Your task to perform on an android device: visit the assistant section in the google photos Image 0: 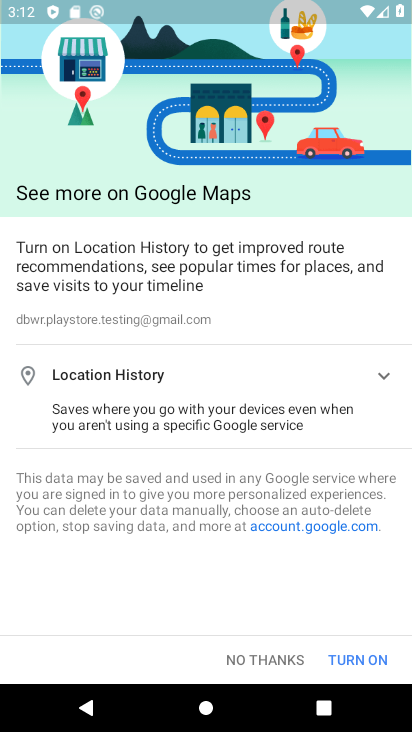
Step 0: press home button
Your task to perform on an android device: visit the assistant section in the google photos Image 1: 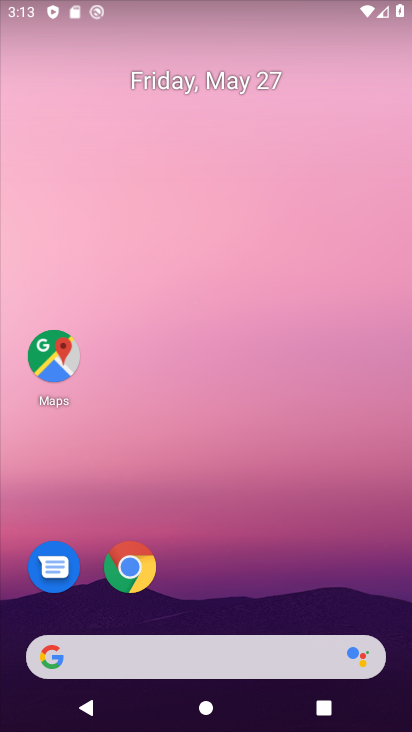
Step 1: drag from (344, 599) to (283, 171)
Your task to perform on an android device: visit the assistant section in the google photos Image 2: 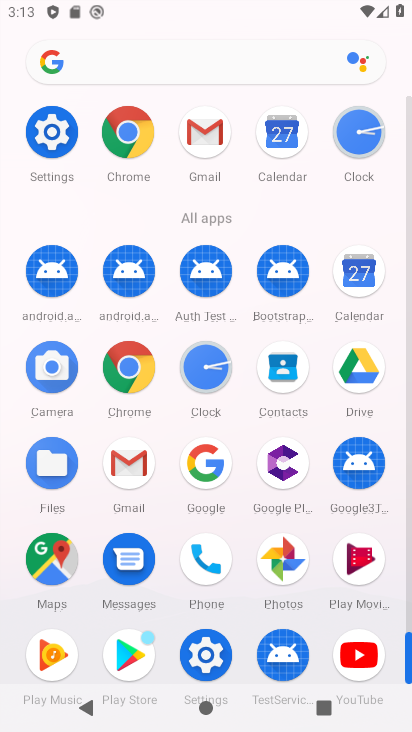
Step 2: click (283, 557)
Your task to perform on an android device: visit the assistant section in the google photos Image 3: 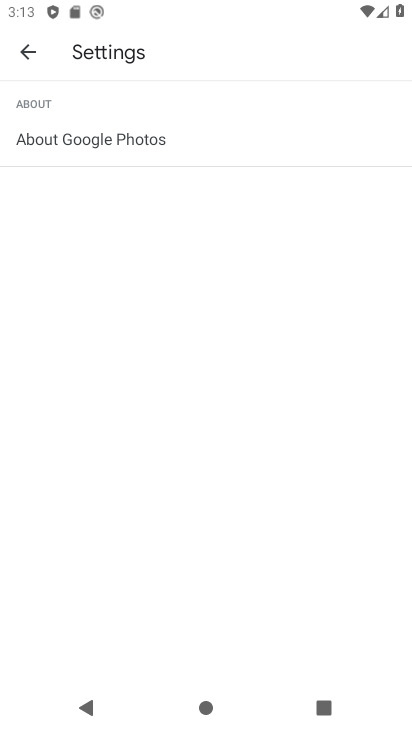
Step 3: press back button
Your task to perform on an android device: visit the assistant section in the google photos Image 4: 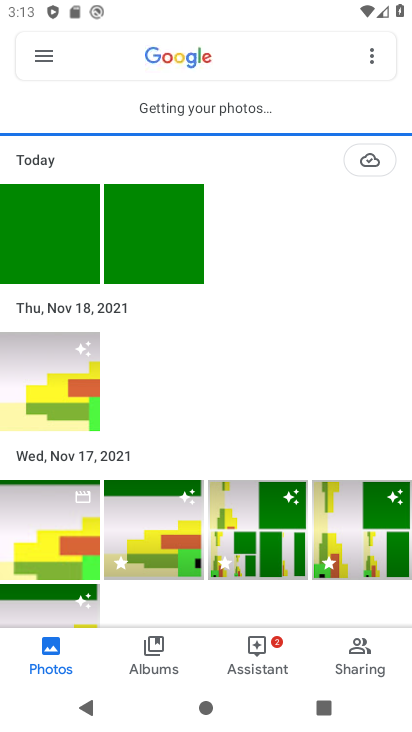
Step 4: click (258, 646)
Your task to perform on an android device: visit the assistant section in the google photos Image 5: 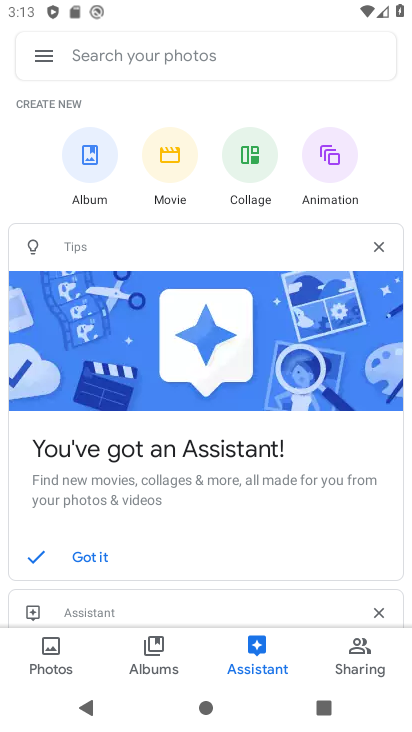
Step 5: task complete